Your task to perform on an android device: check android version Image 0: 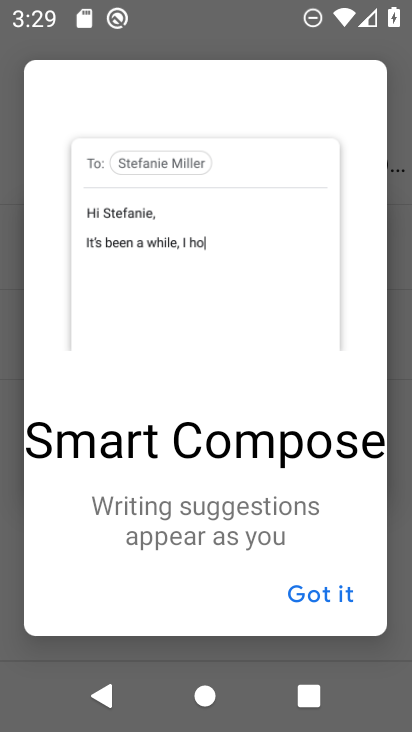
Step 0: press home button
Your task to perform on an android device: check android version Image 1: 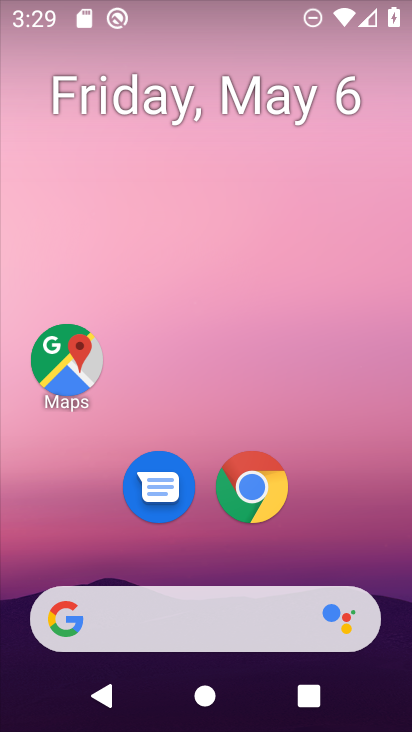
Step 1: drag from (332, 559) to (340, 7)
Your task to perform on an android device: check android version Image 2: 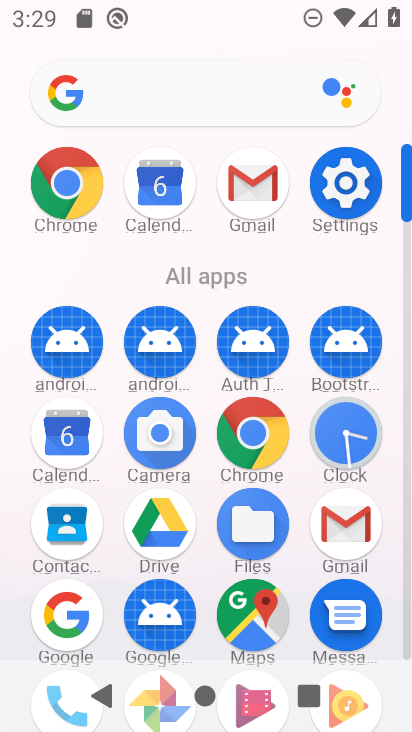
Step 2: click (355, 188)
Your task to perform on an android device: check android version Image 3: 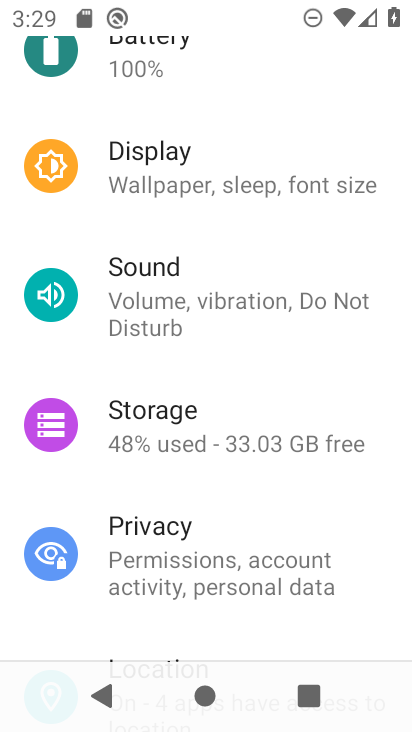
Step 3: drag from (195, 588) to (229, 405)
Your task to perform on an android device: check android version Image 4: 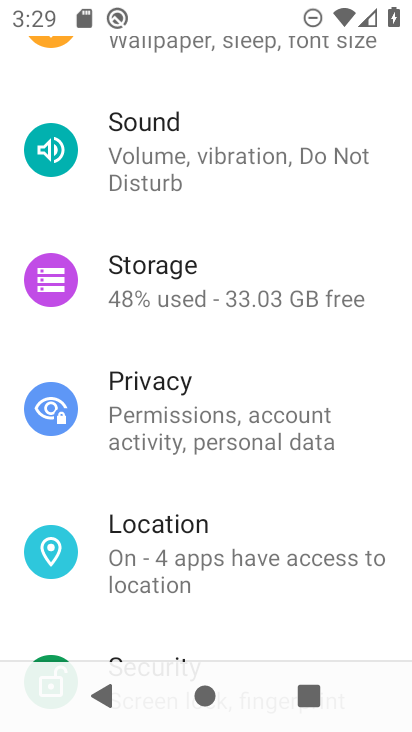
Step 4: drag from (181, 596) to (260, 351)
Your task to perform on an android device: check android version Image 5: 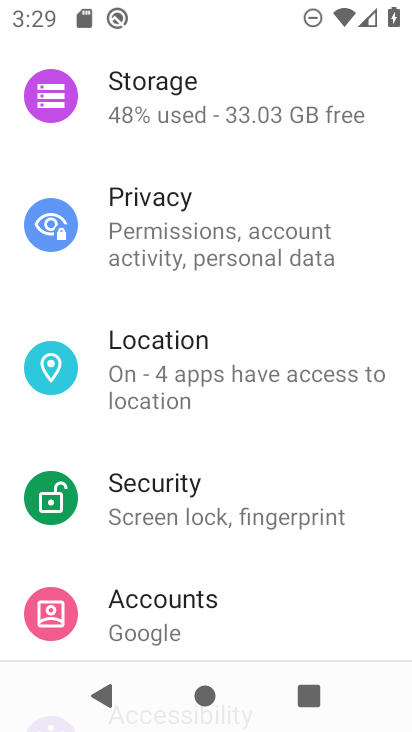
Step 5: drag from (235, 563) to (260, 372)
Your task to perform on an android device: check android version Image 6: 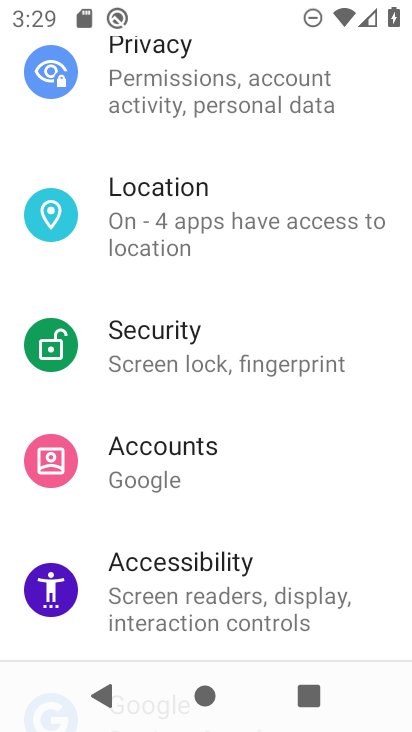
Step 6: drag from (239, 596) to (261, 390)
Your task to perform on an android device: check android version Image 7: 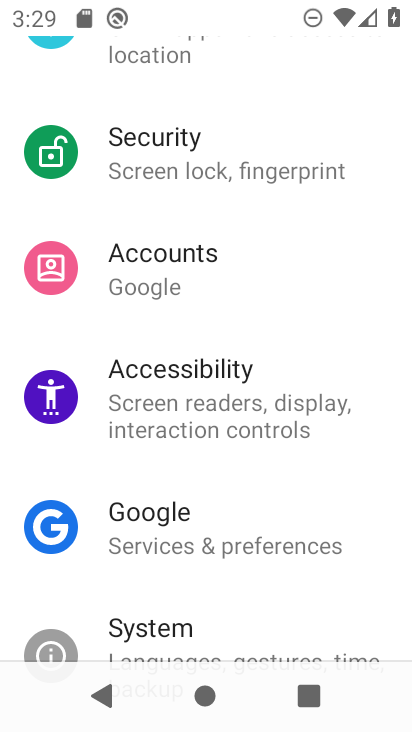
Step 7: drag from (254, 585) to (286, 372)
Your task to perform on an android device: check android version Image 8: 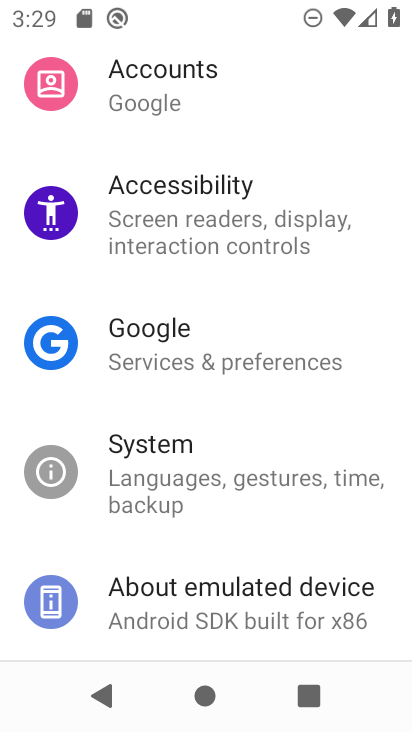
Step 8: click (240, 613)
Your task to perform on an android device: check android version Image 9: 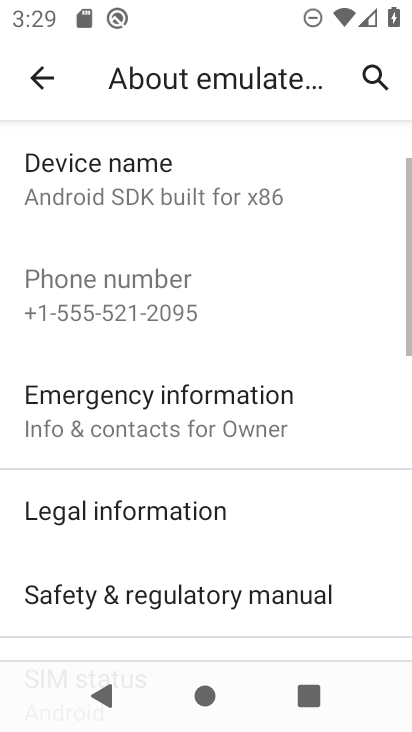
Step 9: drag from (240, 614) to (296, 461)
Your task to perform on an android device: check android version Image 10: 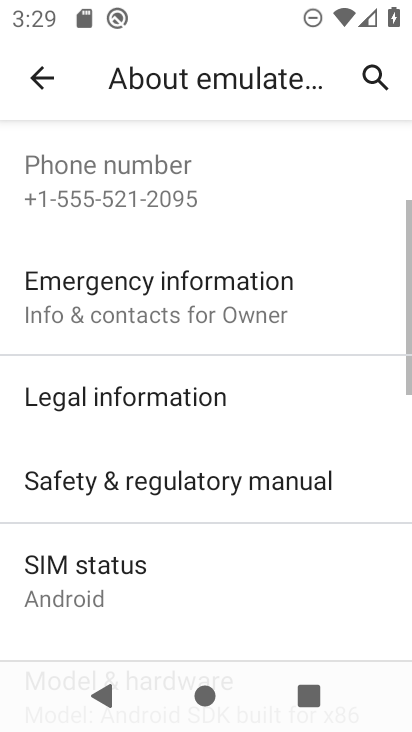
Step 10: drag from (273, 596) to (304, 379)
Your task to perform on an android device: check android version Image 11: 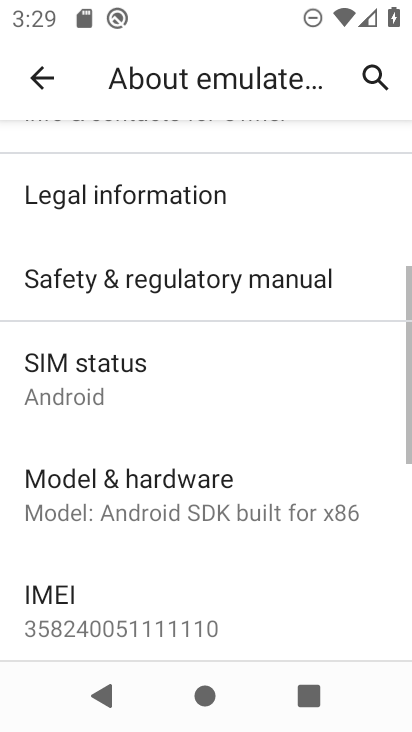
Step 11: drag from (240, 596) to (256, 438)
Your task to perform on an android device: check android version Image 12: 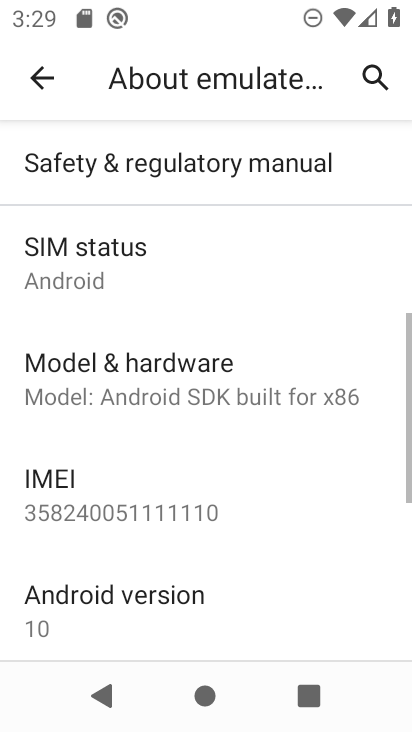
Step 12: click (269, 610)
Your task to perform on an android device: check android version Image 13: 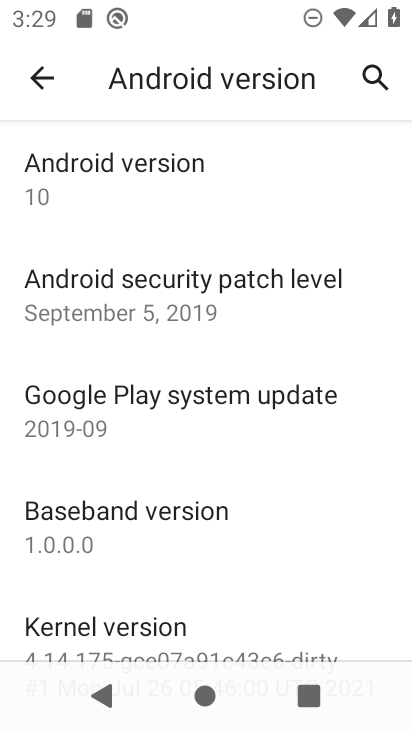
Step 13: task complete